Your task to perform on an android device: Go to notification settings Image 0: 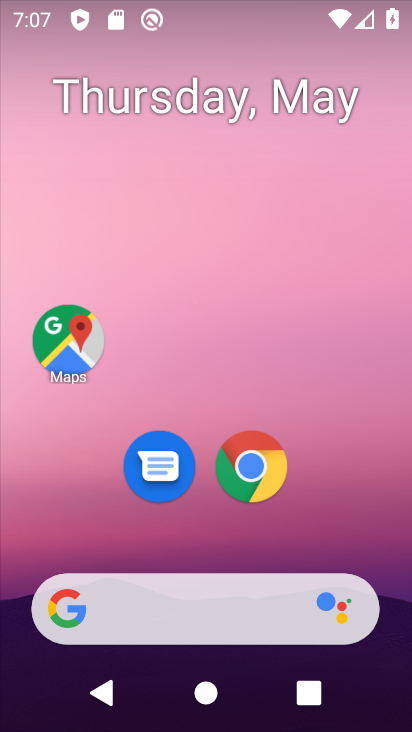
Step 0: drag from (318, 535) to (235, 87)
Your task to perform on an android device: Go to notification settings Image 1: 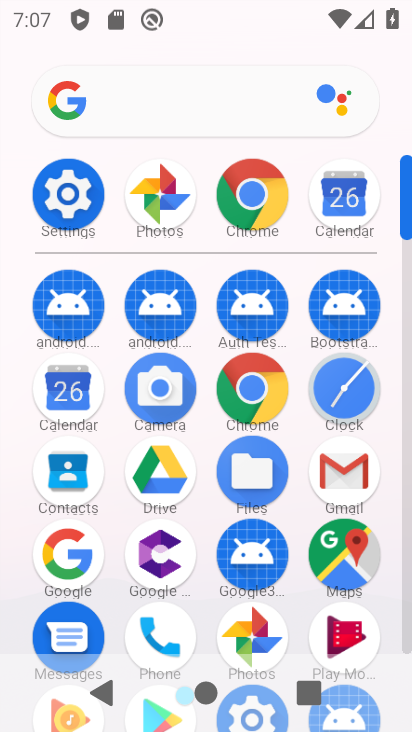
Step 1: click (70, 194)
Your task to perform on an android device: Go to notification settings Image 2: 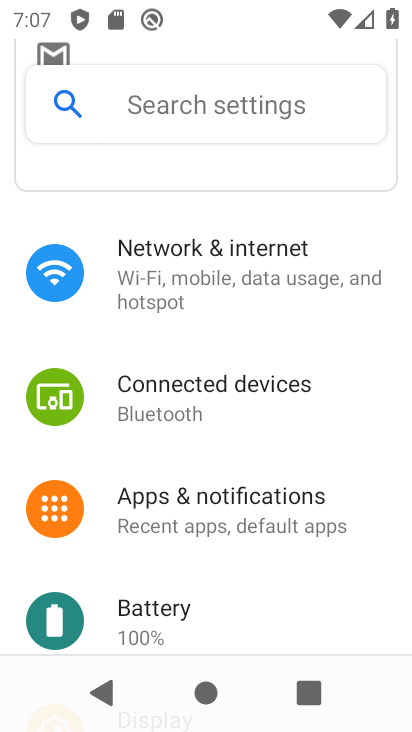
Step 2: click (238, 486)
Your task to perform on an android device: Go to notification settings Image 3: 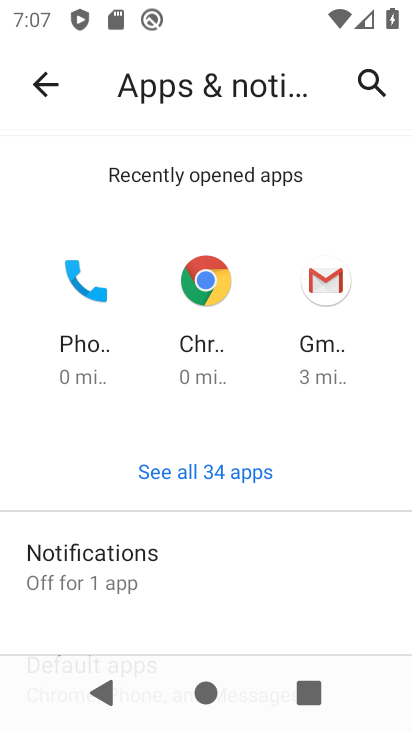
Step 3: task complete